Your task to perform on an android device: Go to Android settings Image 0: 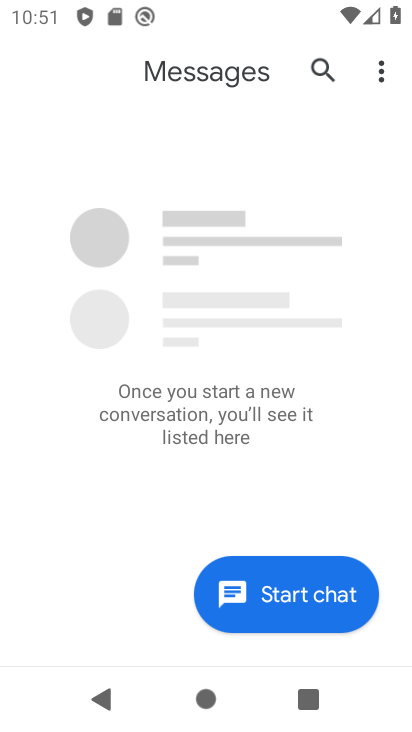
Step 0: press home button
Your task to perform on an android device: Go to Android settings Image 1: 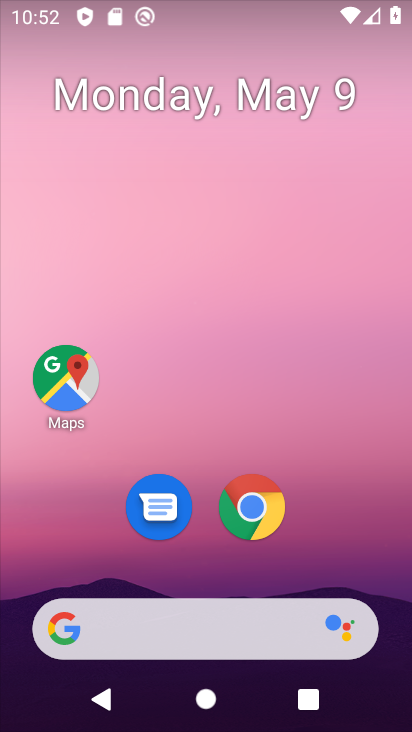
Step 1: click (264, 538)
Your task to perform on an android device: Go to Android settings Image 2: 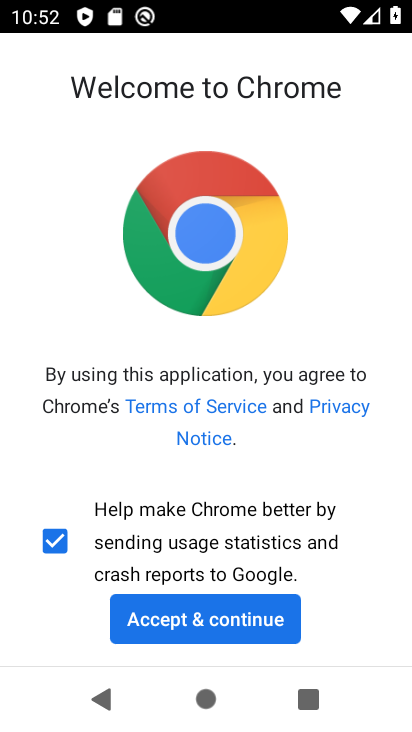
Step 2: press home button
Your task to perform on an android device: Go to Android settings Image 3: 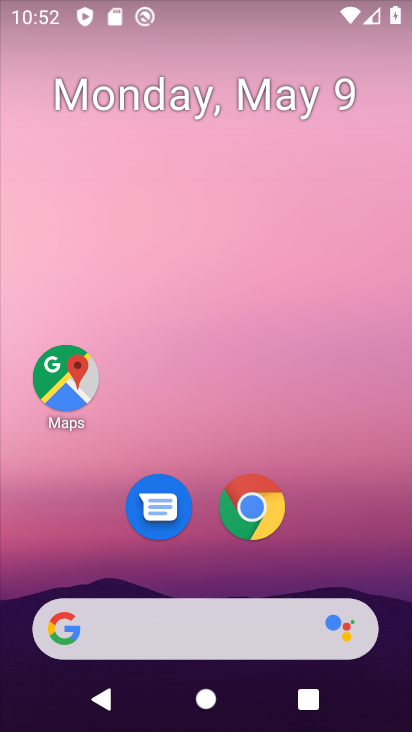
Step 3: drag from (324, 531) to (311, 33)
Your task to perform on an android device: Go to Android settings Image 4: 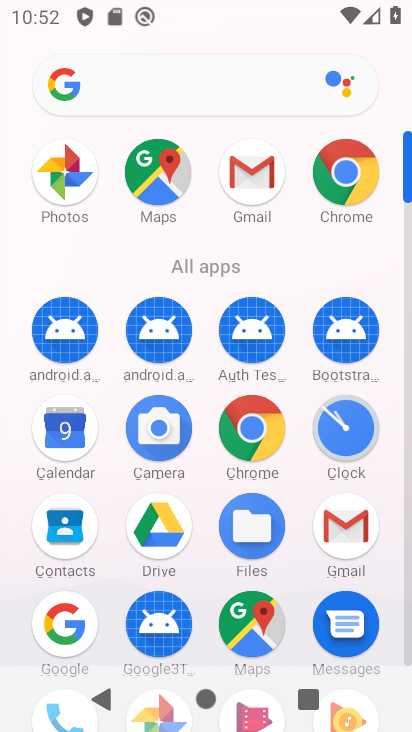
Step 4: drag from (197, 550) to (195, 232)
Your task to perform on an android device: Go to Android settings Image 5: 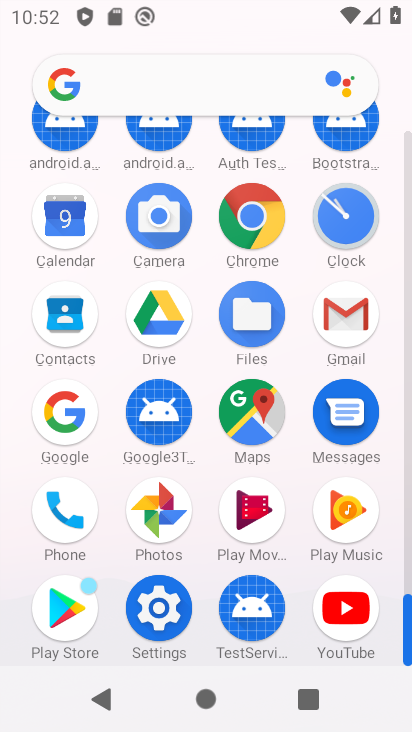
Step 5: click (159, 611)
Your task to perform on an android device: Go to Android settings Image 6: 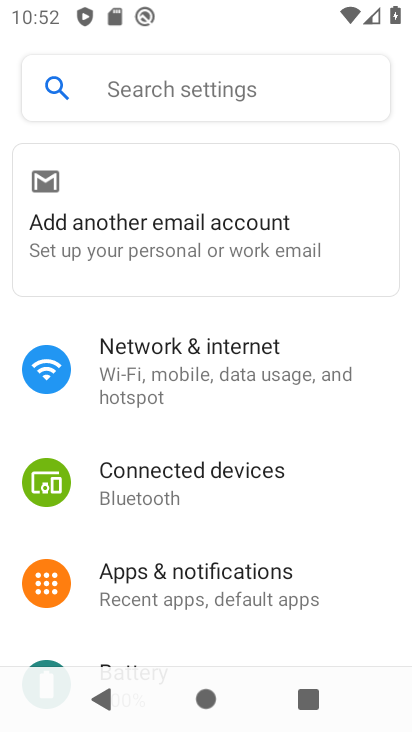
Step 6: drag from (205, 596) to (243, 228)
Your task to perform on an android device: Go to Android settings Image 7: 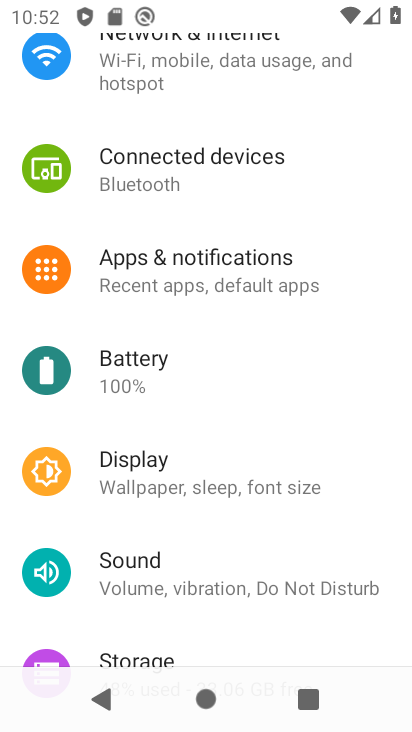
Step 7: drag from (245, 570) to (263, 280)
Your task to perform on an android device: Go to Android settings Image 8: 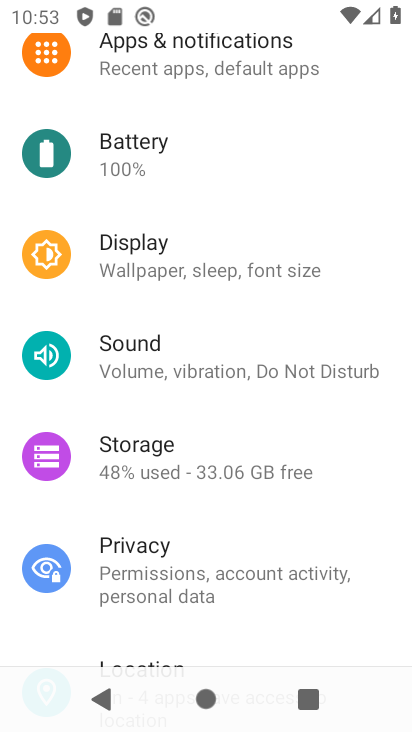
Step 8: drag from (230, 575) to (226, 288)
Your task to perform on an android device: Go to Android settings Image 9: 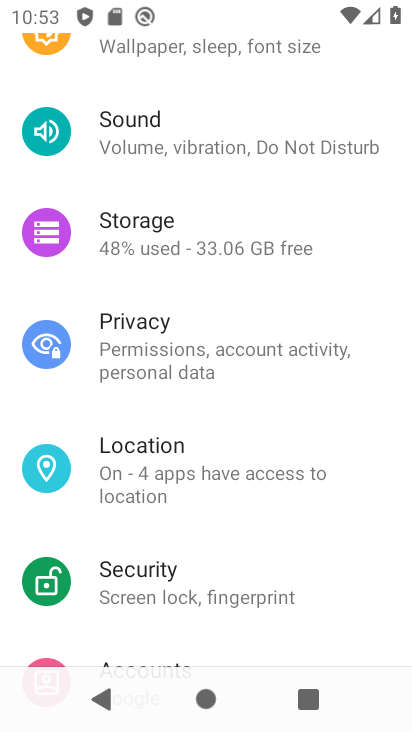
Step 9: drag from (229, 520) to (259, 239)
Your task to perform on an android device: Go to Android settings Image 10: 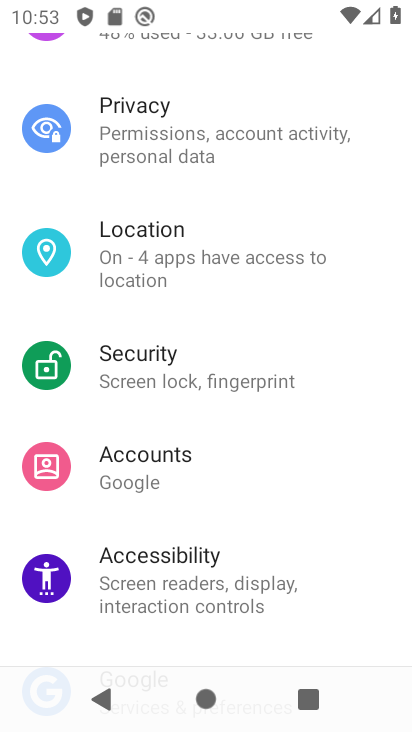
Step 10: drag from (245, 533) to (287, 146)
Your task to perform on an android device: Go to Android settings Image 11: 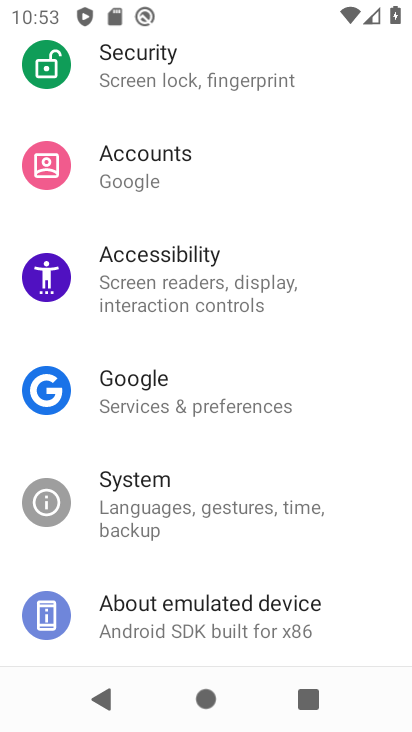
Step 11: click (256, 612)
Your task to perform on an android device: Go to Android settings Image 12: 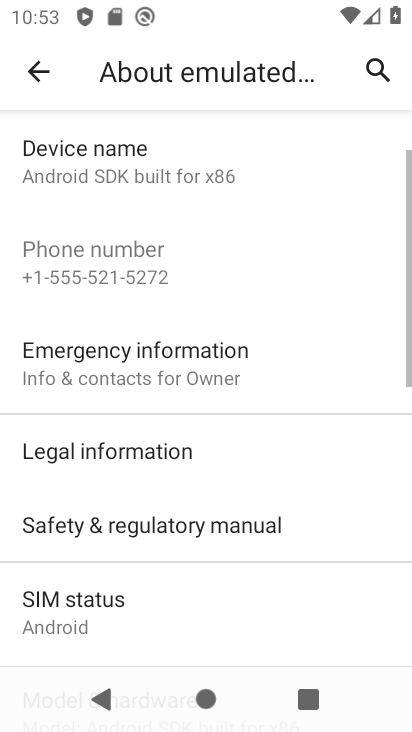
Step 12: drag from (240, 572) to (275, 206)
Your task to perform on an android device: Go to Android settings Image 13: 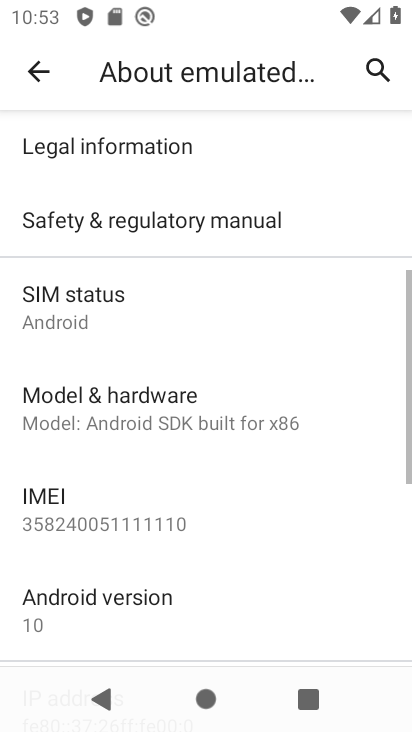
Step 13: drag from (246, 530) to (265, 300)
Your task to perform on an android device: Go to Android settings Image 14: 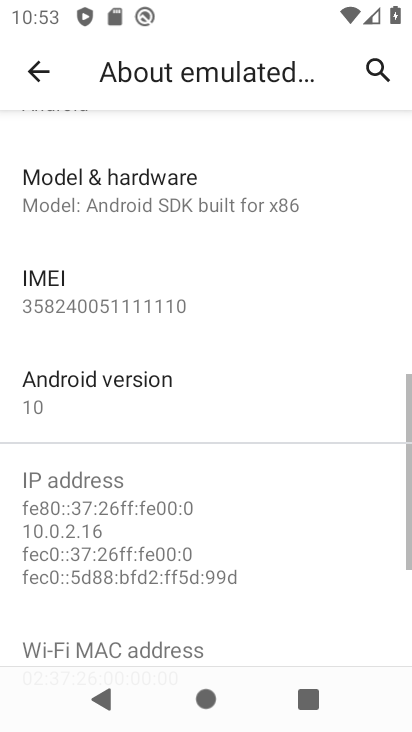
Step 14: click (96, 387)
Your task to perform on an android device: Go to Android settings Image 15: 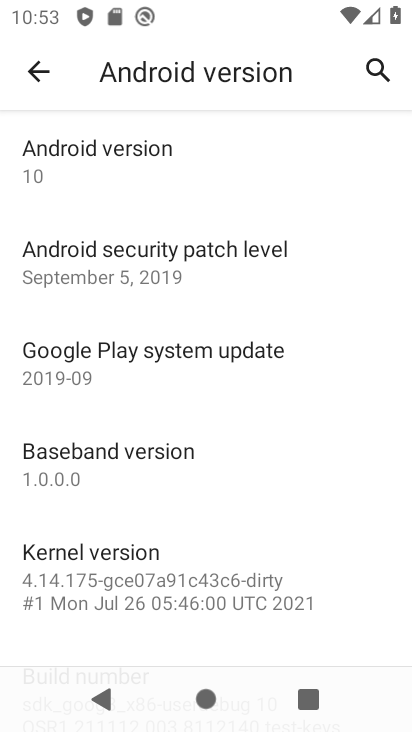
Step 15: task complete